Your task to perform on an android device: clear history in the chrome app Image 0: 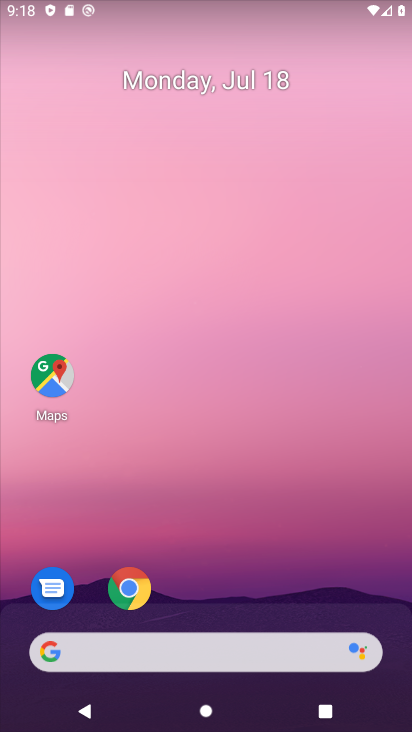
Step 0: click (130, 597)
Your task to perform on an android device: clear history in the chrome app Image 1: 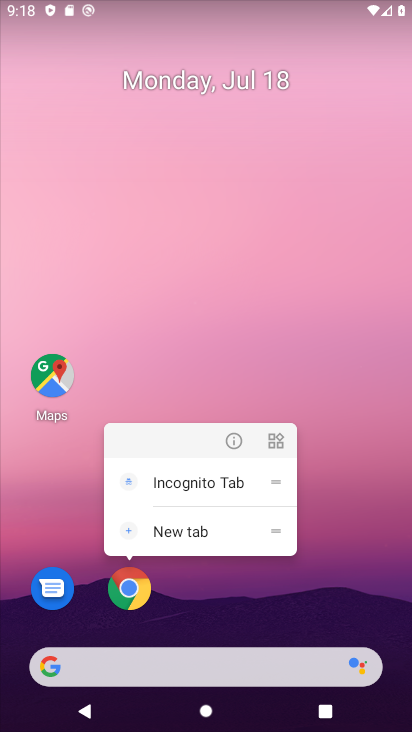
Step 1: click (130, 586)
Your task to perform on an android device: clear history in the chrome app Image 2: 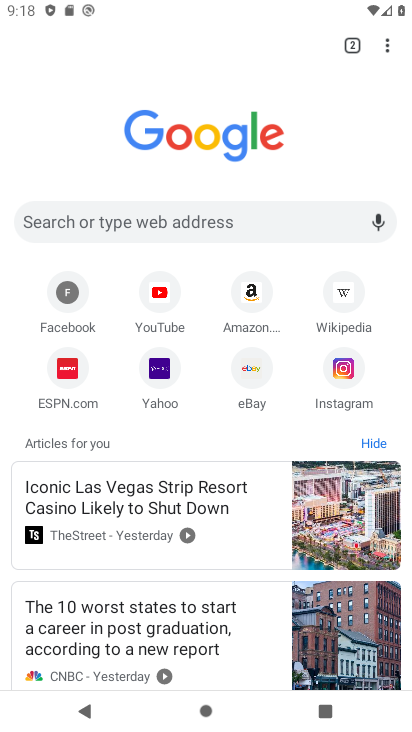
Step 2: drag from (388, 42) to (317, 246)
Your task to perform on an android device: clear history in the chrome app Image 3: 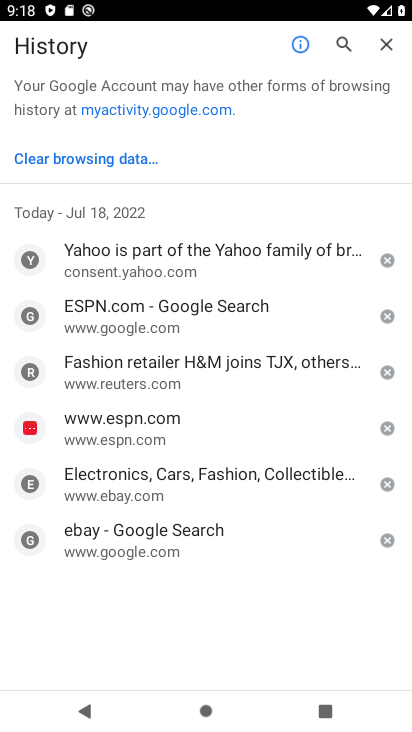
Step 3: click (91, 164)
Your task to perform on an android device: clear history in the chrome app Image 4: 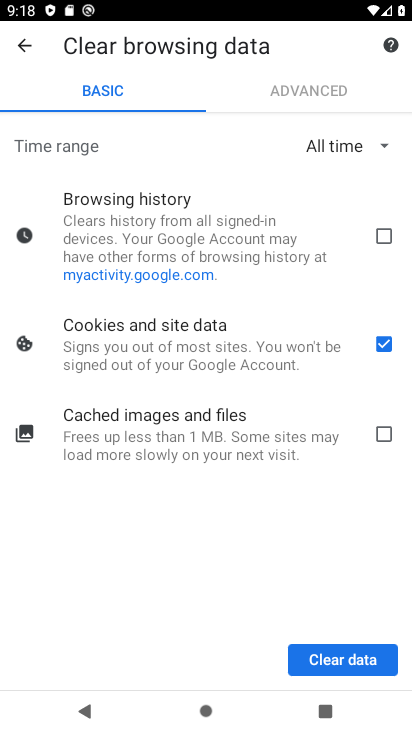
Step 4: click (380, 232)
Your task to perform on an android device: clear history in the chrome app Image 5: 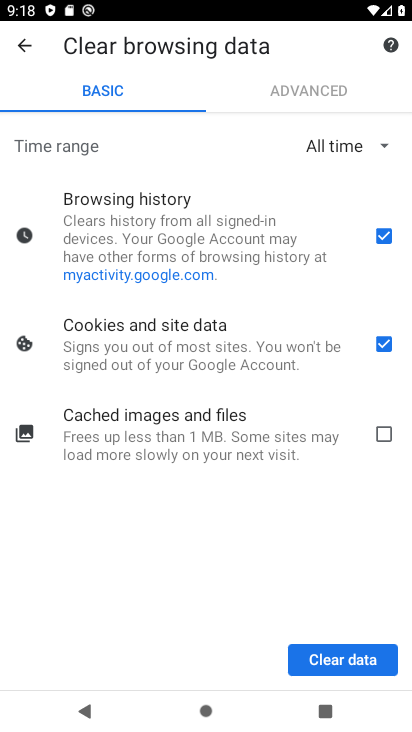
Step 5: click (396, 418)
Your task to perform on an android device: clear history in the chrome app Image 6: 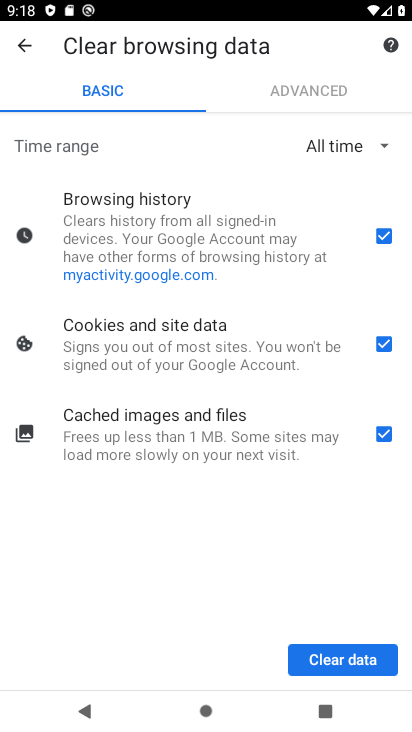
Step 6: click (362, 665)
Your task to perform on an android device: clear history in the chrome app Image 7: 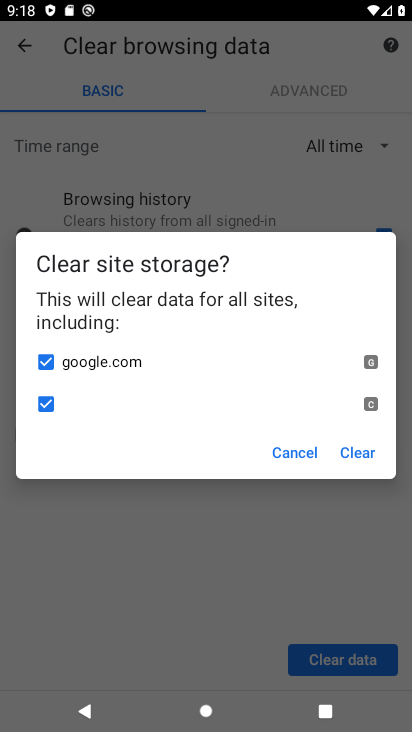
Step 7: click (355, 447)
Your task to perform on an android device: clear history in the chrome app Image 8: 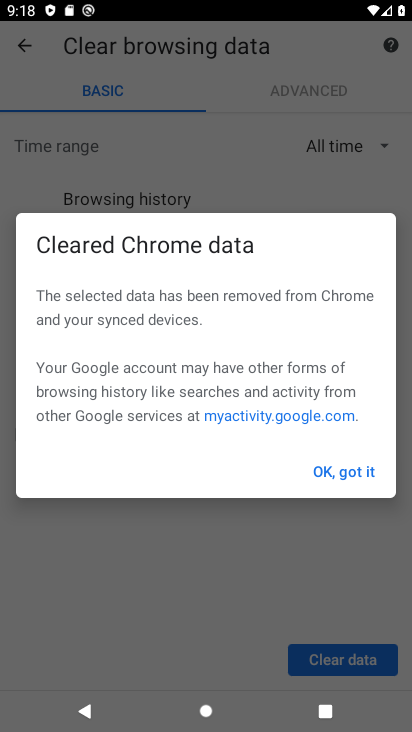
Step 8: click (345, 463)
Your task to perform on an android device: clear history in the chrome app Image 9: 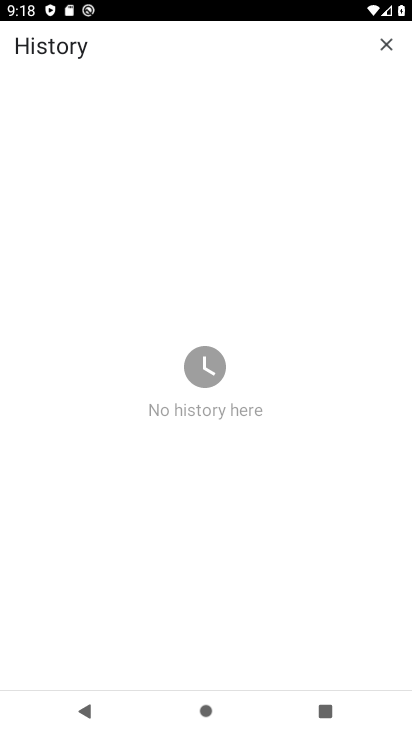
Step 9: task complete